Your task to perform on an android device: Open Youtube and go to the subscriptions tab Image 0: 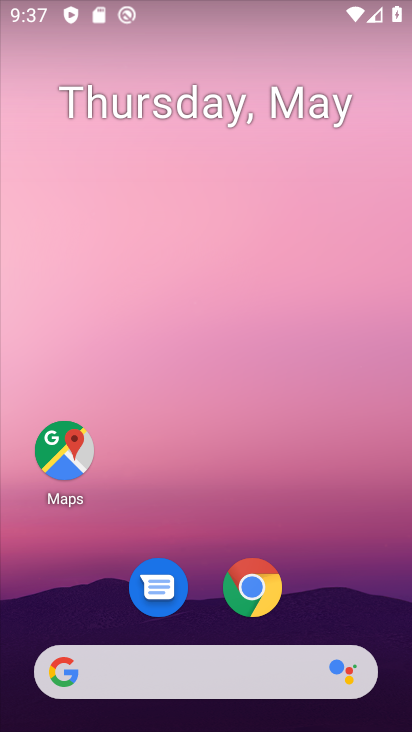
Step 0: drag from (391, 685) to (229, 10)
Your task to perform on an android device: Open Youtube and go to the subscriptions tab Image 1: 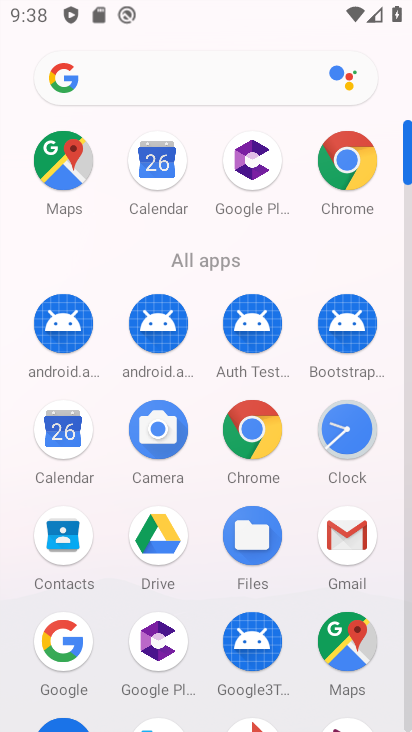
Step 1: drag from (197, 653) to (229, 127)
Your task to perform on an android device: Open Youtube and go to the subscriptions tab Image 2: 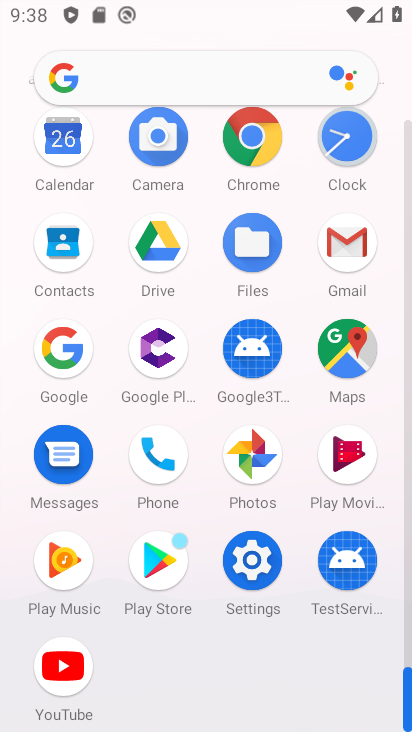
Step 2: click (73, 659)
Your task to perform on an android device: Open Youtube and go to the subscriptions tab Image 3: 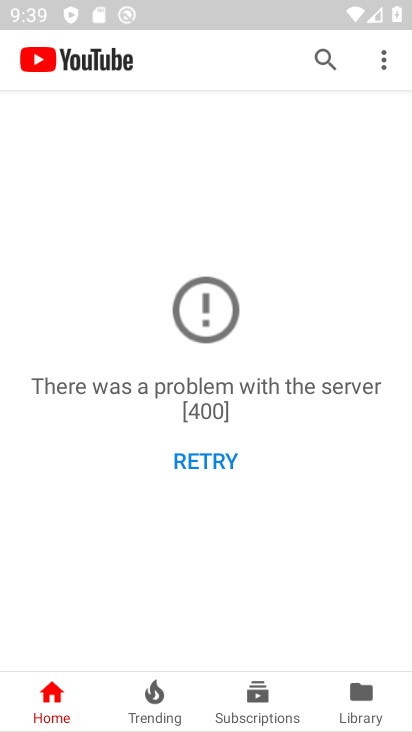
Step 3: click (260, 694)
Your task to perform on an android device: Open Youtube and go to the subscriptions tab Image 4: 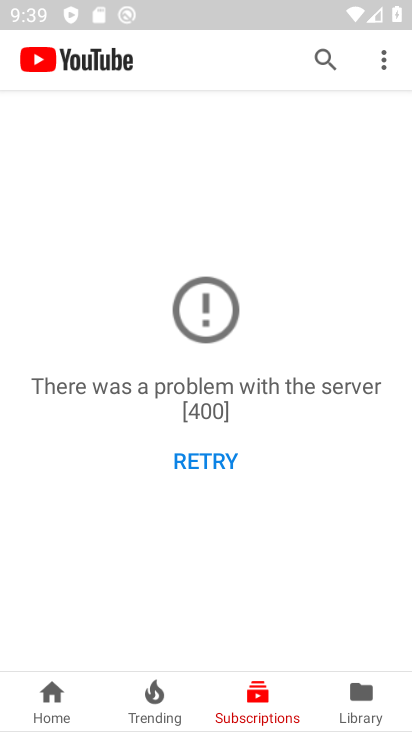
Step 4: click (217, 466)
Your task to perform on an android device: Open Youtube and go to the subscriptions tab Image 5: 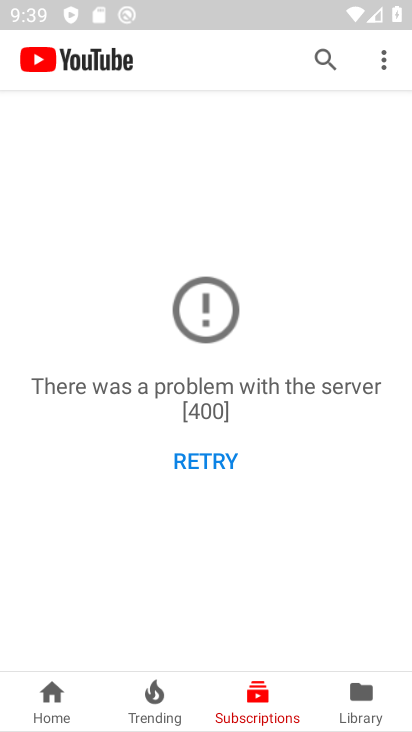
Step 5: click (217, 466)
Your task to perform on an android device: Open Youtube and go to the subscriptions tab Image 6: 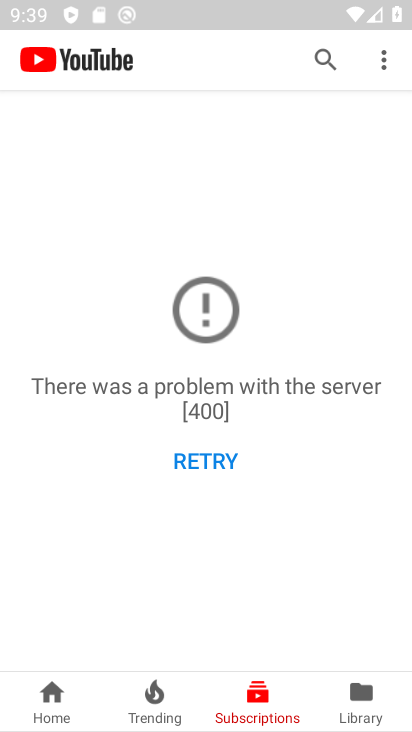
Step 6: task complete